Your task to perform on an android device: What's on my calendar tomorrow? Image 0: 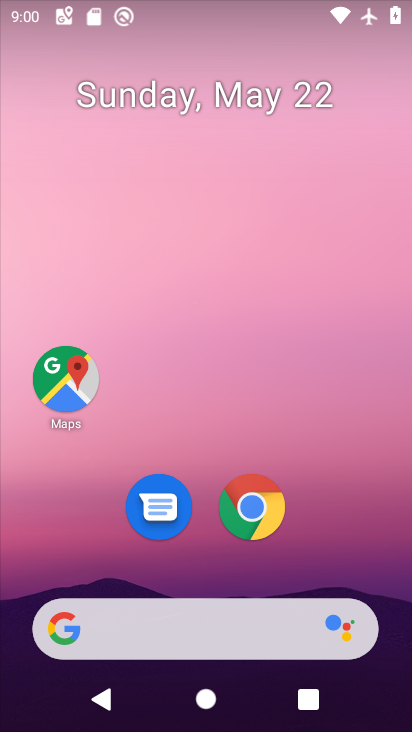
Step 0: click (280, 117)
Your task to perform on an android device: What's on my calendar tomorrow? Image 1: 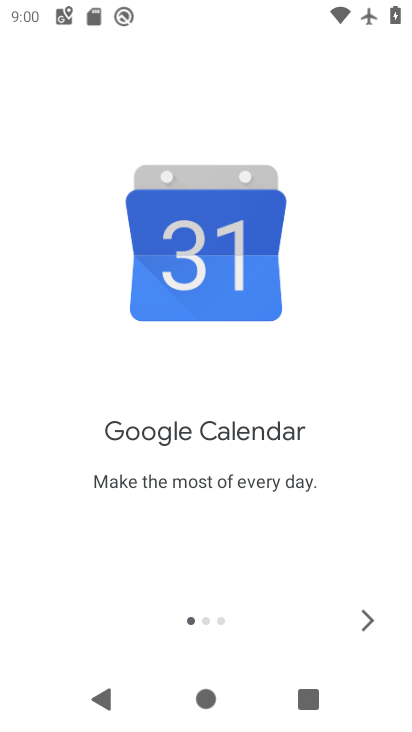
Step 1: click (359, 617)
Your task to perform on an android device: What's on my calendar tomorrow? Image 2: 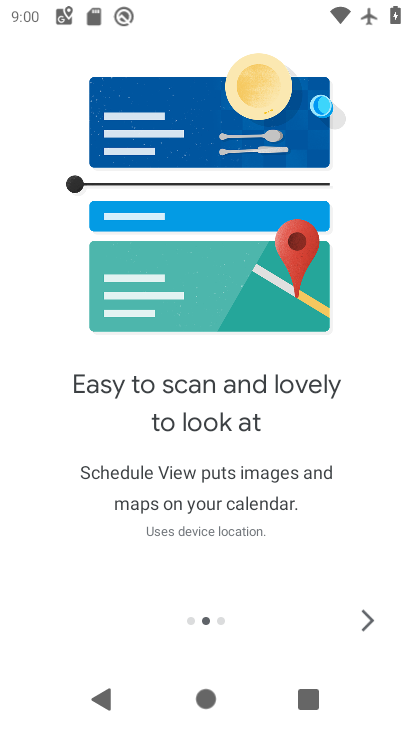
Step 2: click (359, 617)
Your task to perform on an android device: What's on my calendar tomorrow? Image 3: 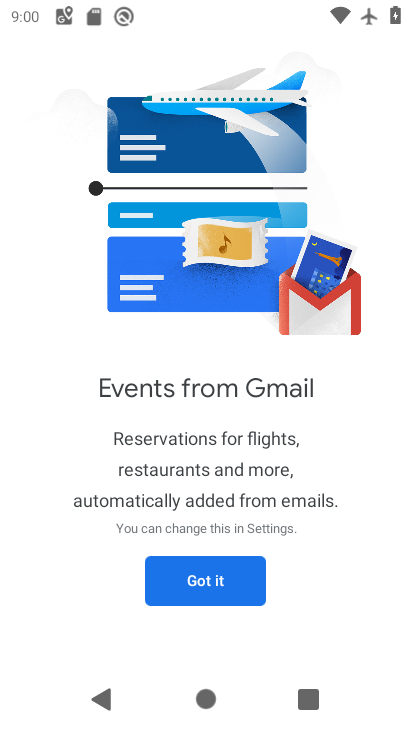
Step 3: click (211, 577)
Your task to perform on an android device: What's on my calendar tomorrow? Image 4: 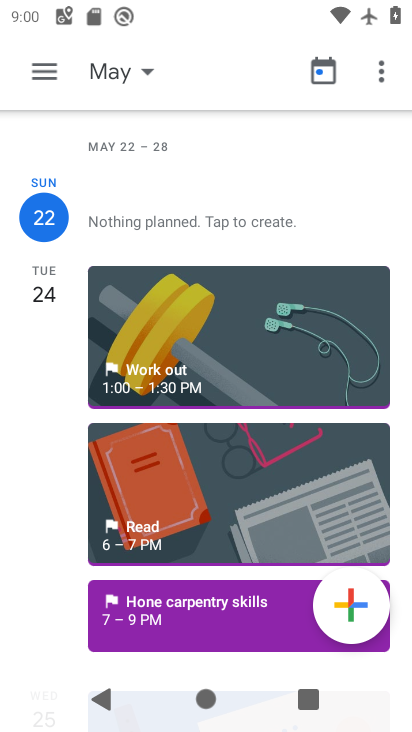
Step 4: click (127, 74)
Your task to perform on an android device: What's on my calendar tomorrow? Image 5: 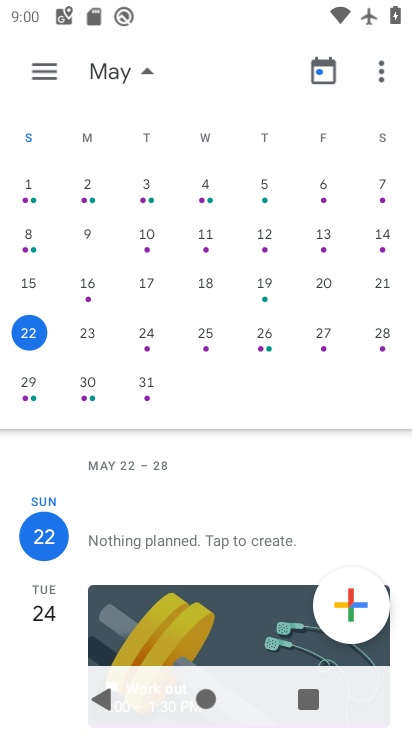
Step 5: click (86, 333)
Your task to perform on an android device: What's on my calendar tomorrow? Image 6: 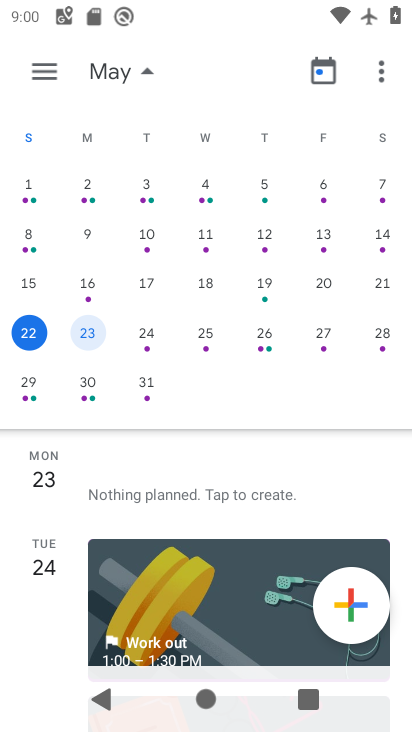
Step 6: task complete